Your task to perform on an android device: open app "Google Duo" Image 0: 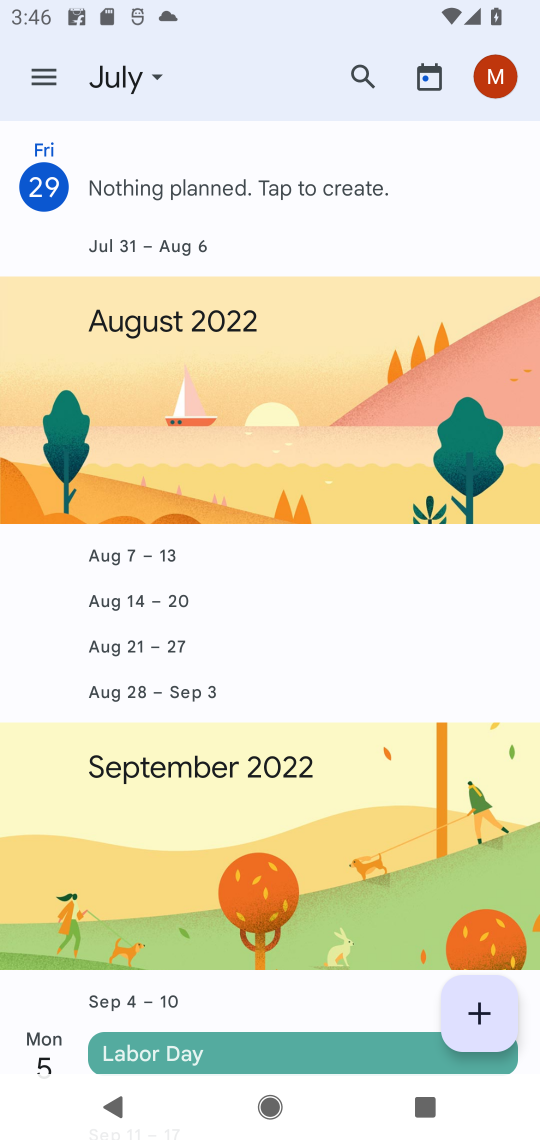
Step 0: press home button
Your task to perform on an android device: open app "Google Duo" Image 1: 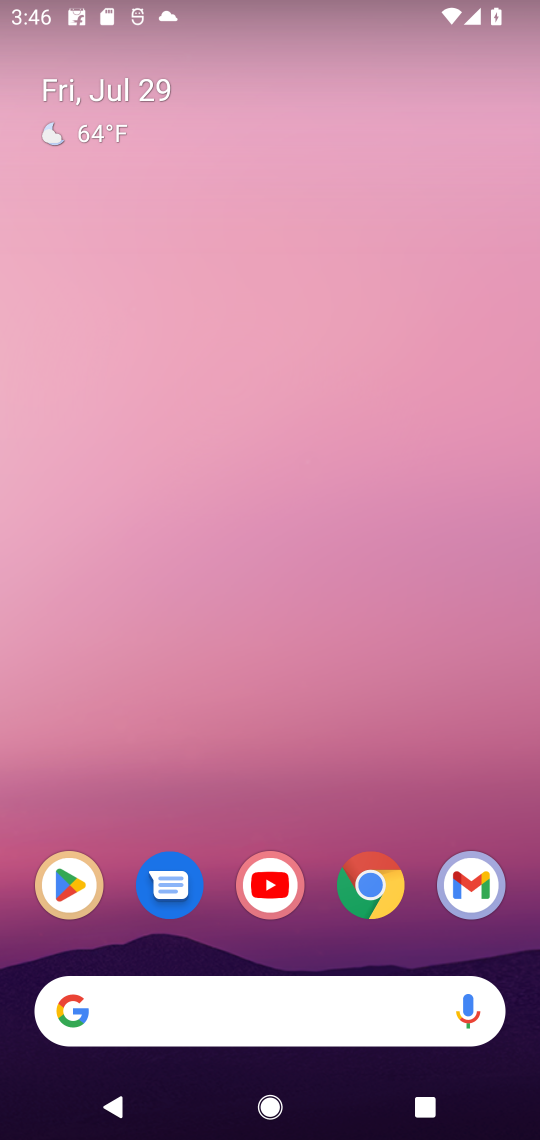
Step 1: click (63, 879)
Your task to perform on an android device: open app "Google Duo" Image 2: 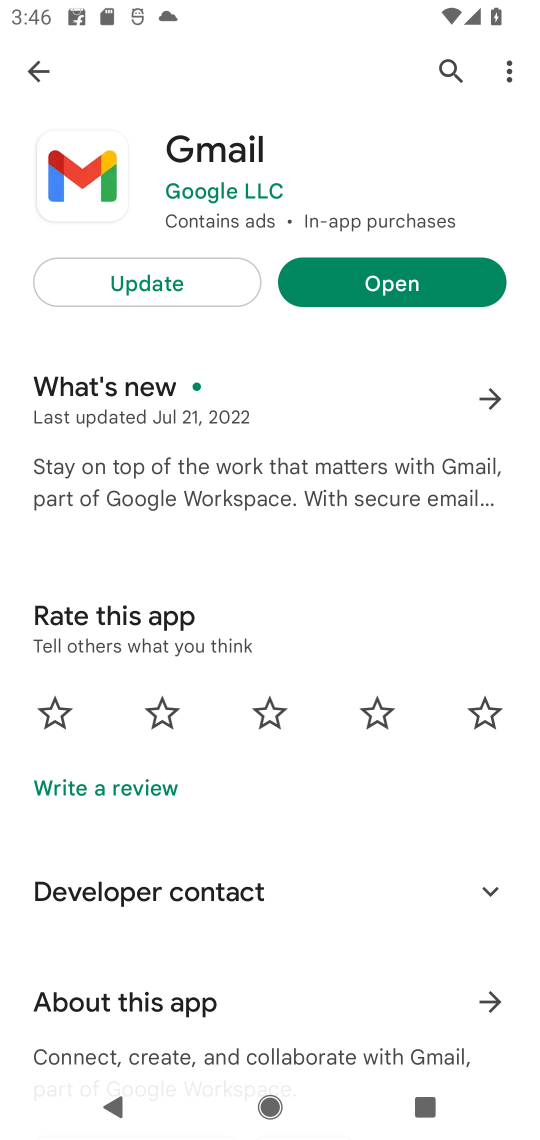
Step 2: click (452, 66)
Your task to perform on an android device: open app "Google Duo" Image 3: 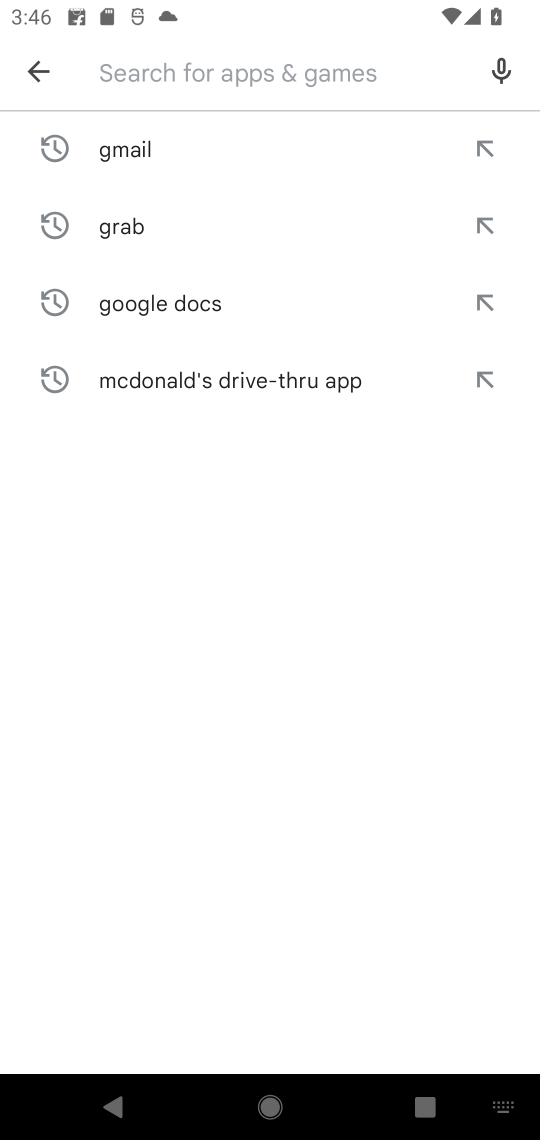
Step 3: click (263, 82)
Your task to perform on an android device: open app "Google Duo" Image 4: 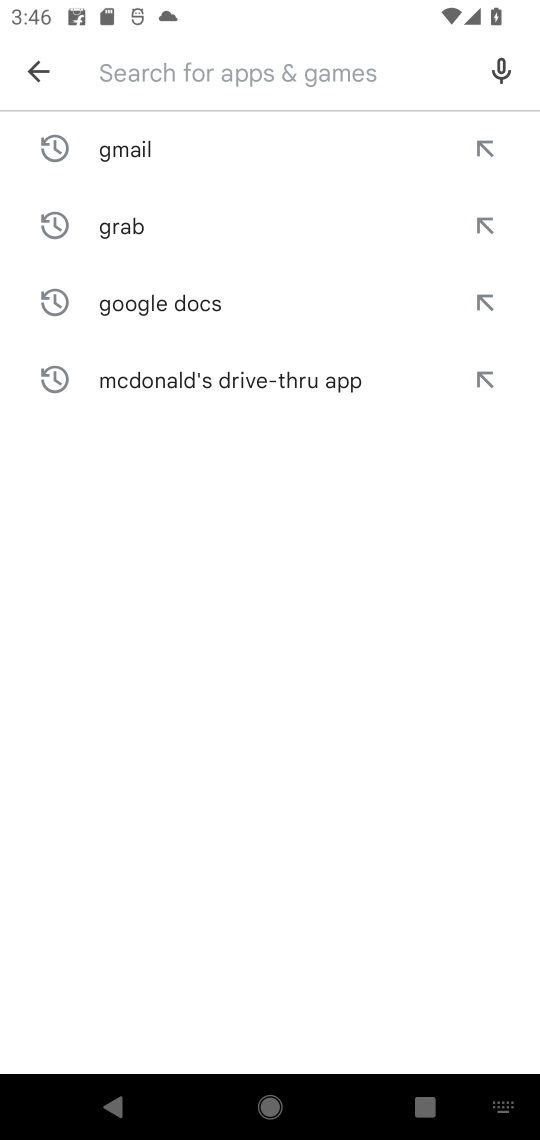
Step 4: type "Google Duo"
Your task to perform on an android device: open app "Google Duo" Image 5: 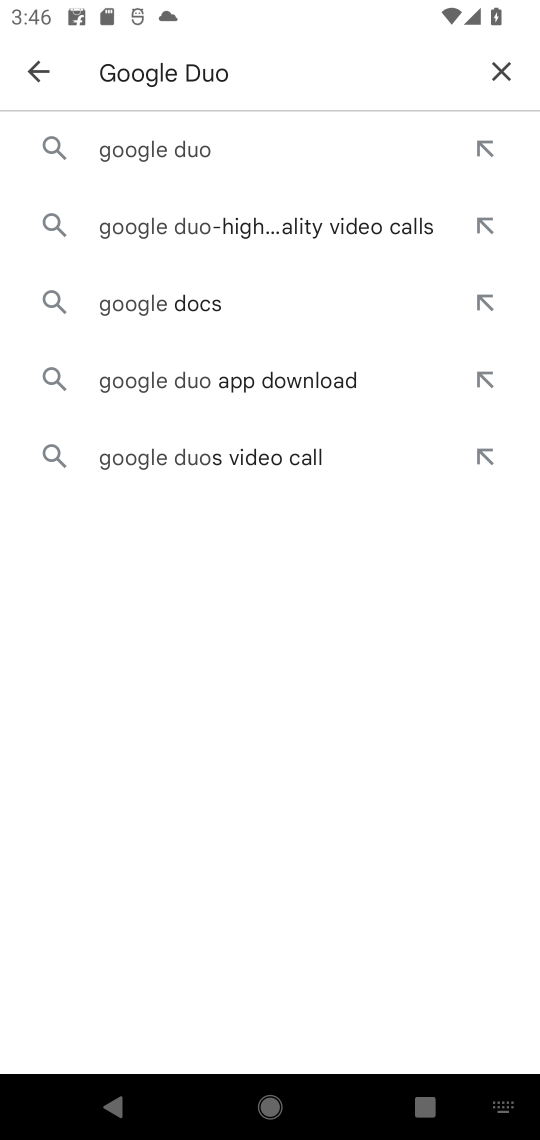
Step 5: click (137, 140)
Your task to perform on an android device: open app "Google Duo" Image 6: 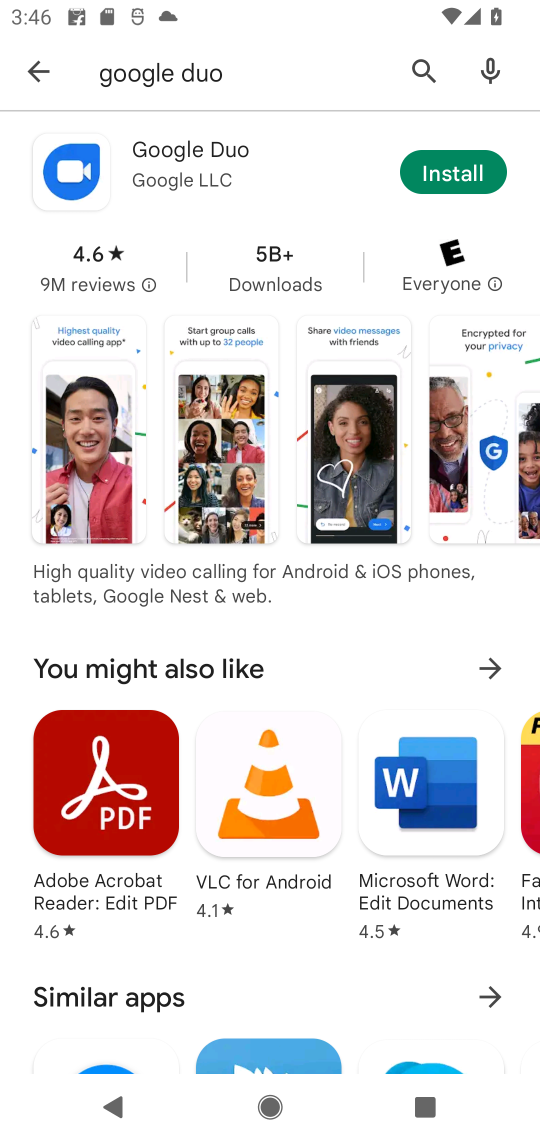
Step 6: click (446, 171)
Your task to perform on an android device: open app "Google Duo" Image 7: 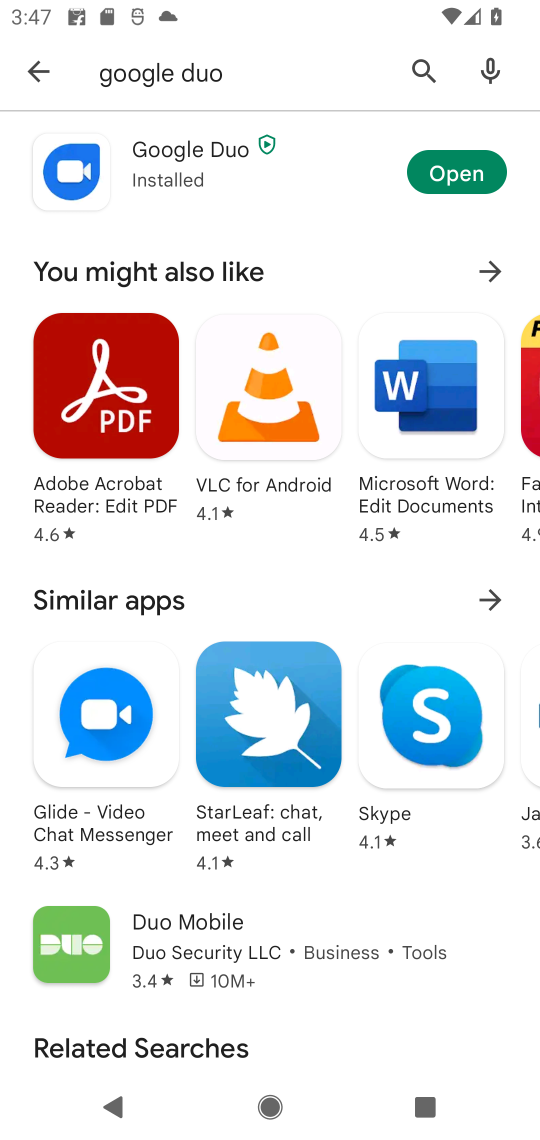
Step 7: click (446, 171)
Your task to perform on an android device: open app "Google Duo" Image 8: 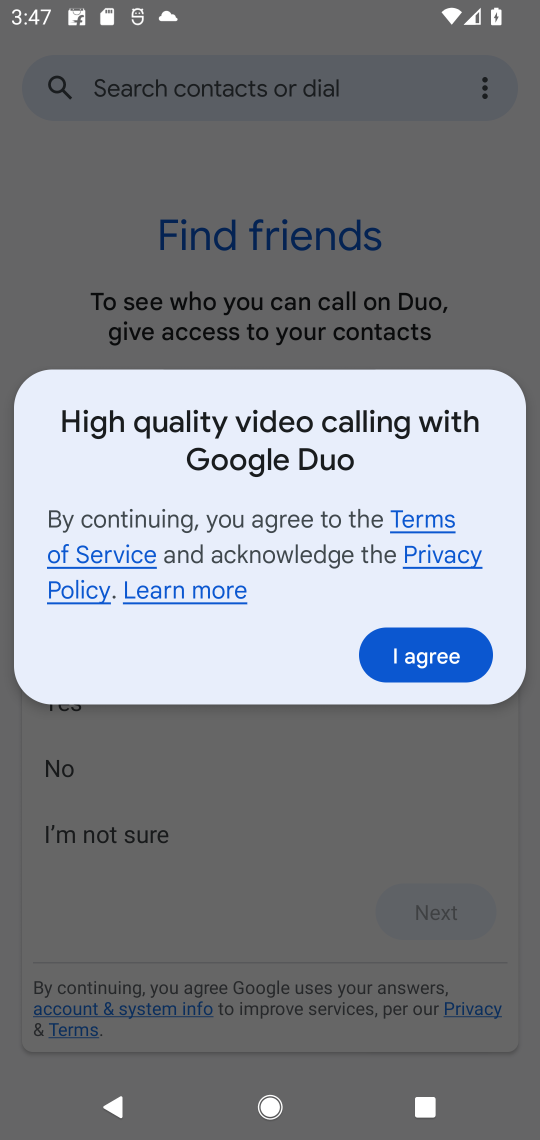
Step 8: click (434, 663)
Your task to perform on an android device: open app "Google Duo" Image 9: 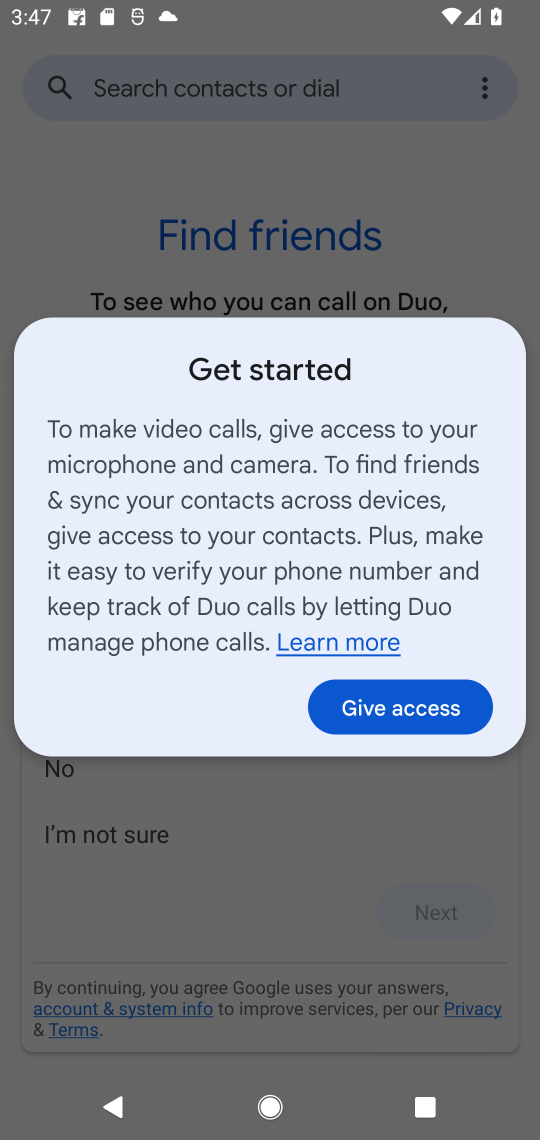
Step 9: task complete